Your task to perform on an android device: Search for pizza restaurants on Maps Image 0: 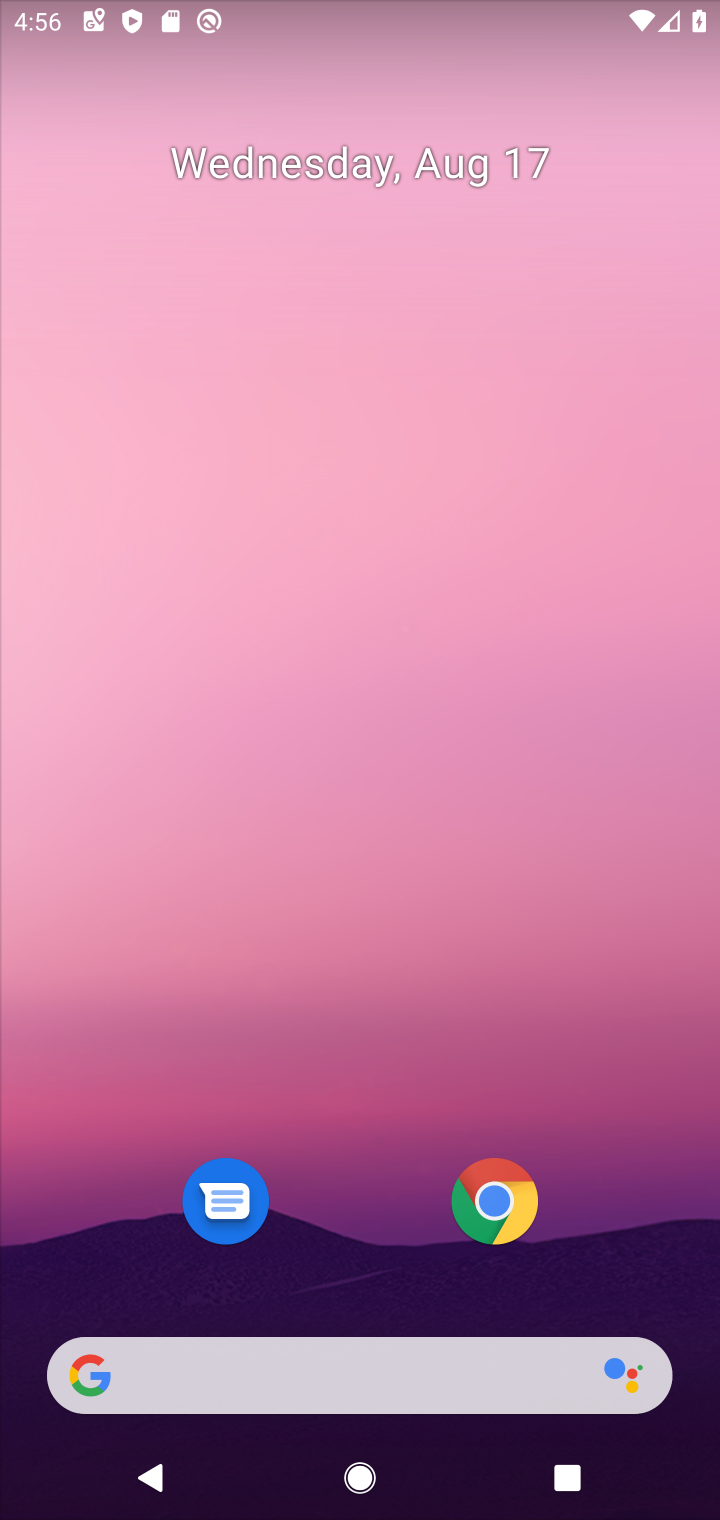
Step 0: drag from (490, 895) to (685, 22)
Your task to perform on an android device: Search for pizza restaurants on Maps Image 1: 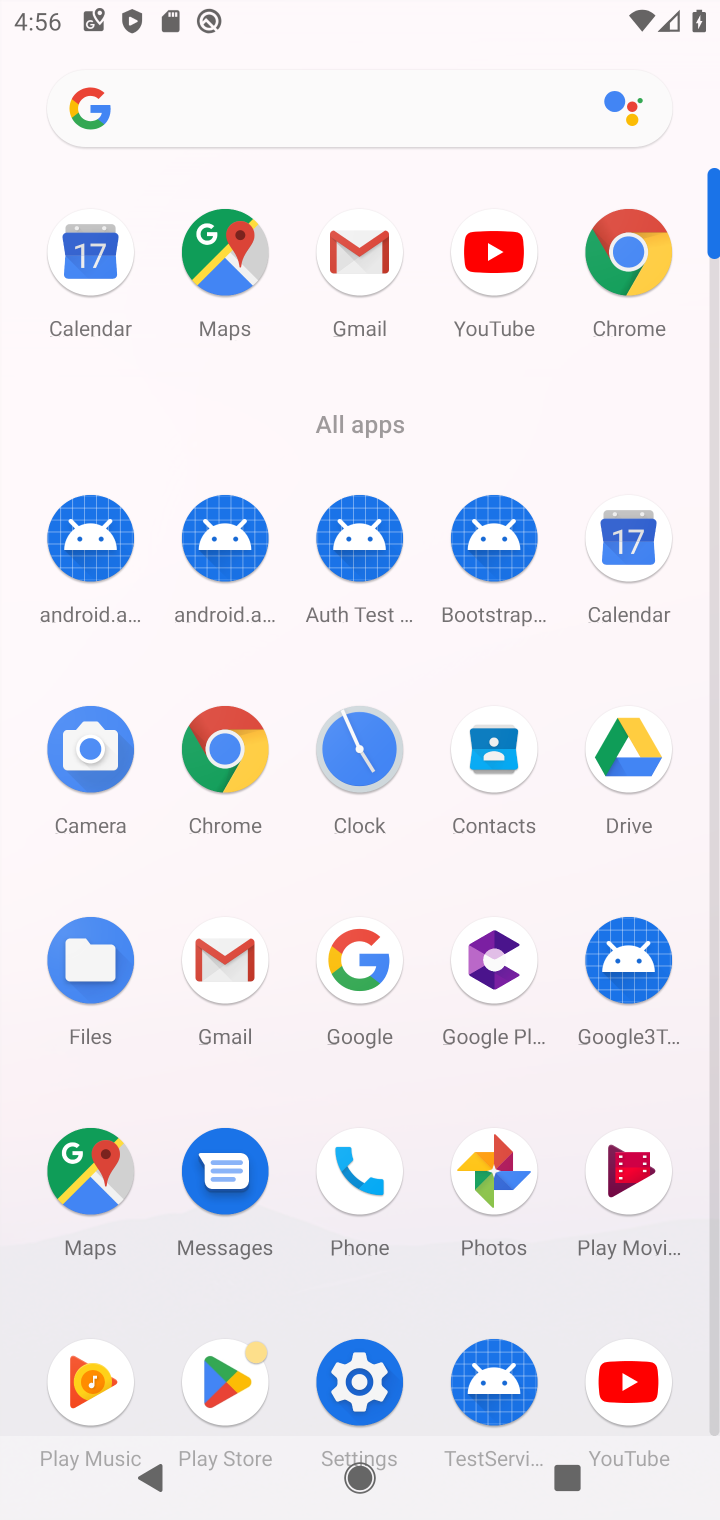
Step 1: click (232, 276)
Your task to perform on an android device: Search for pizza restaurants on Maps Image 2: 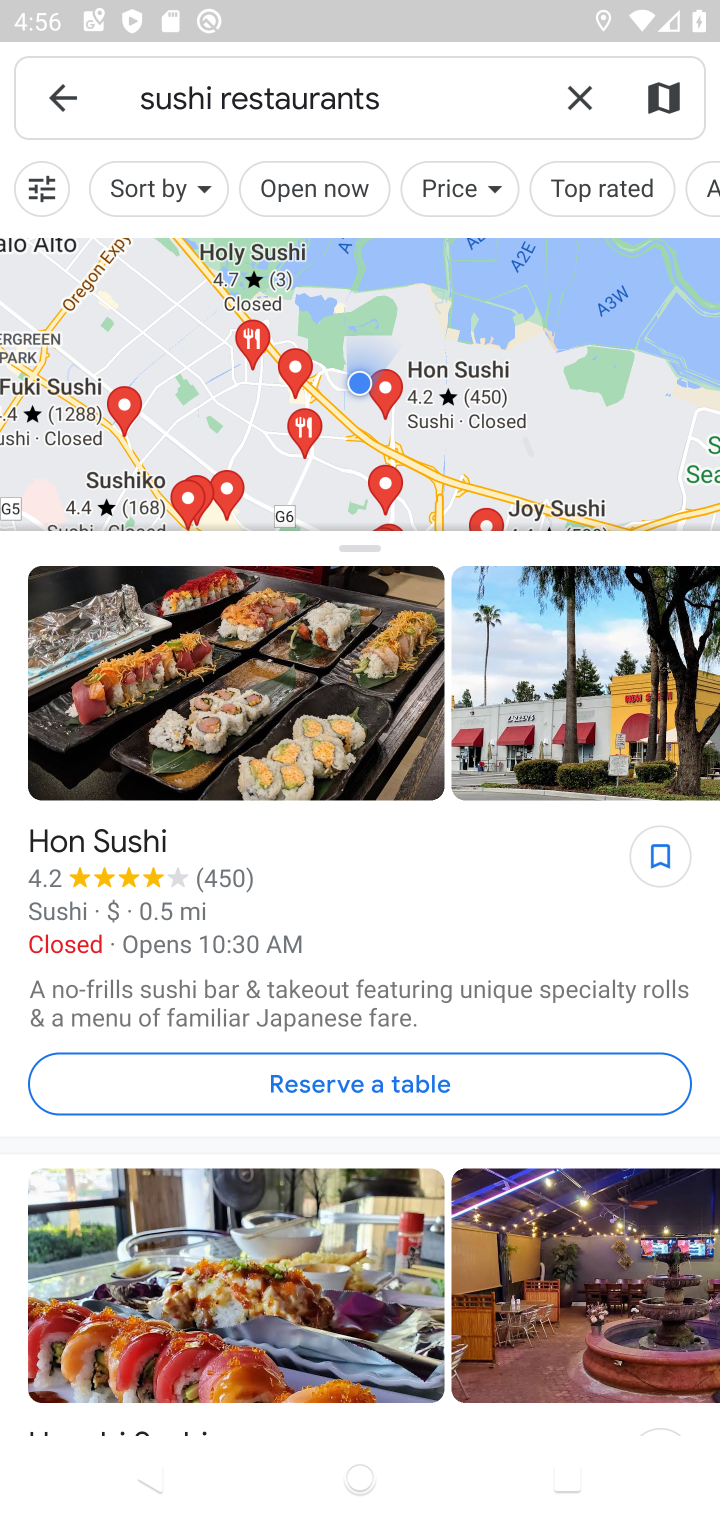
Step 2: click (588, 112)
Your task to perform on an android device: Search for pizza restaurants on Maps Image 3: 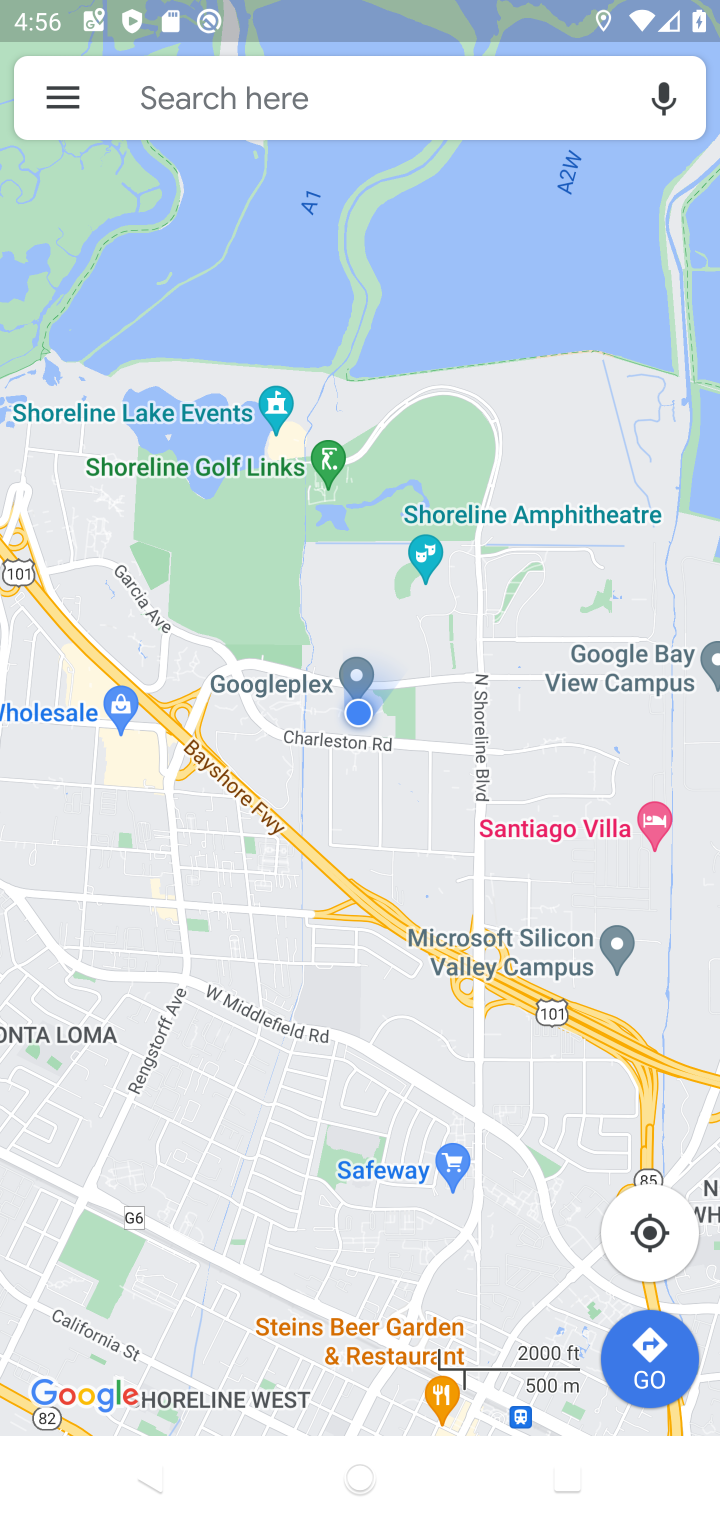
Step 3: click (243, 90)
Your task to perform on an android device: Search for pizza restaurants on Maps Image 4: 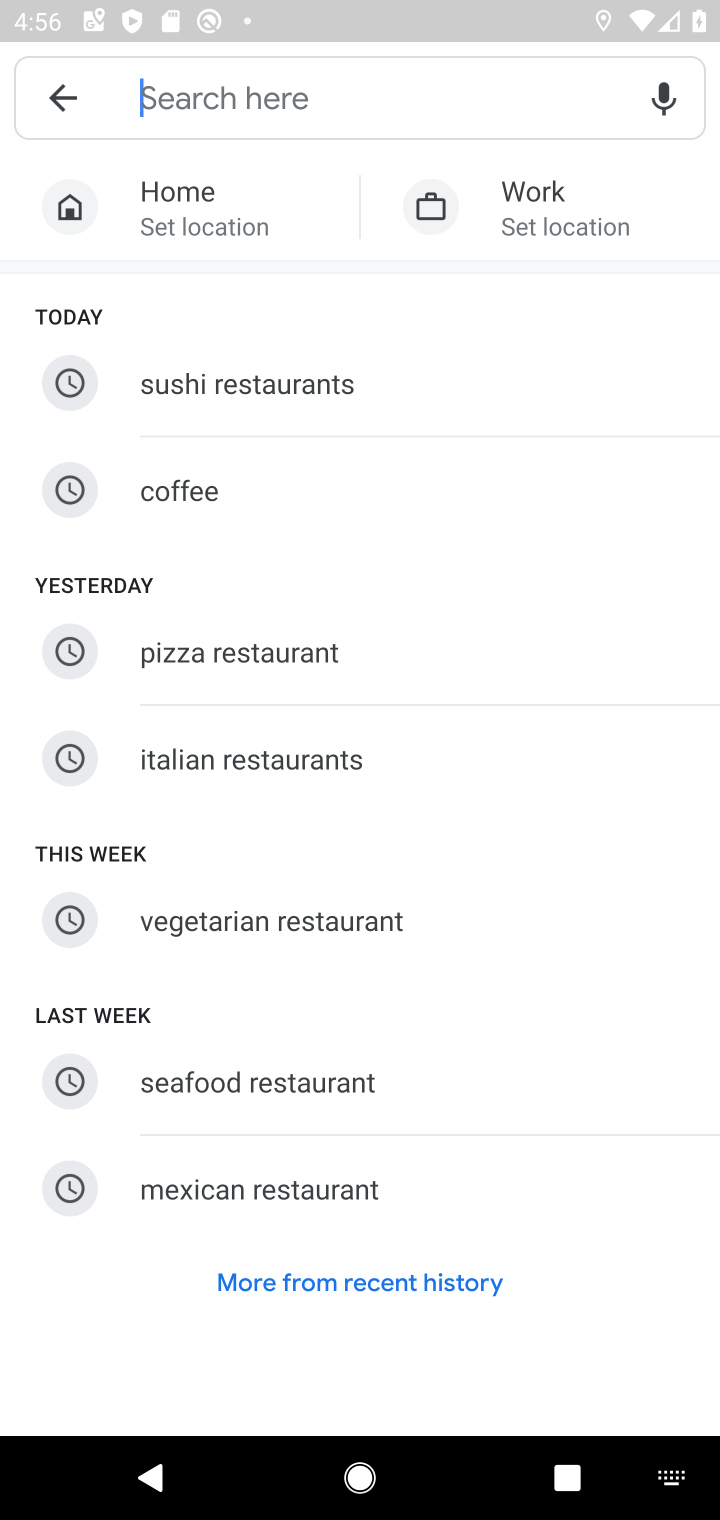
Step 4: click (212, 664)
Your task to perform on an android device: Search for pizza restaurants on Maps Image 5: 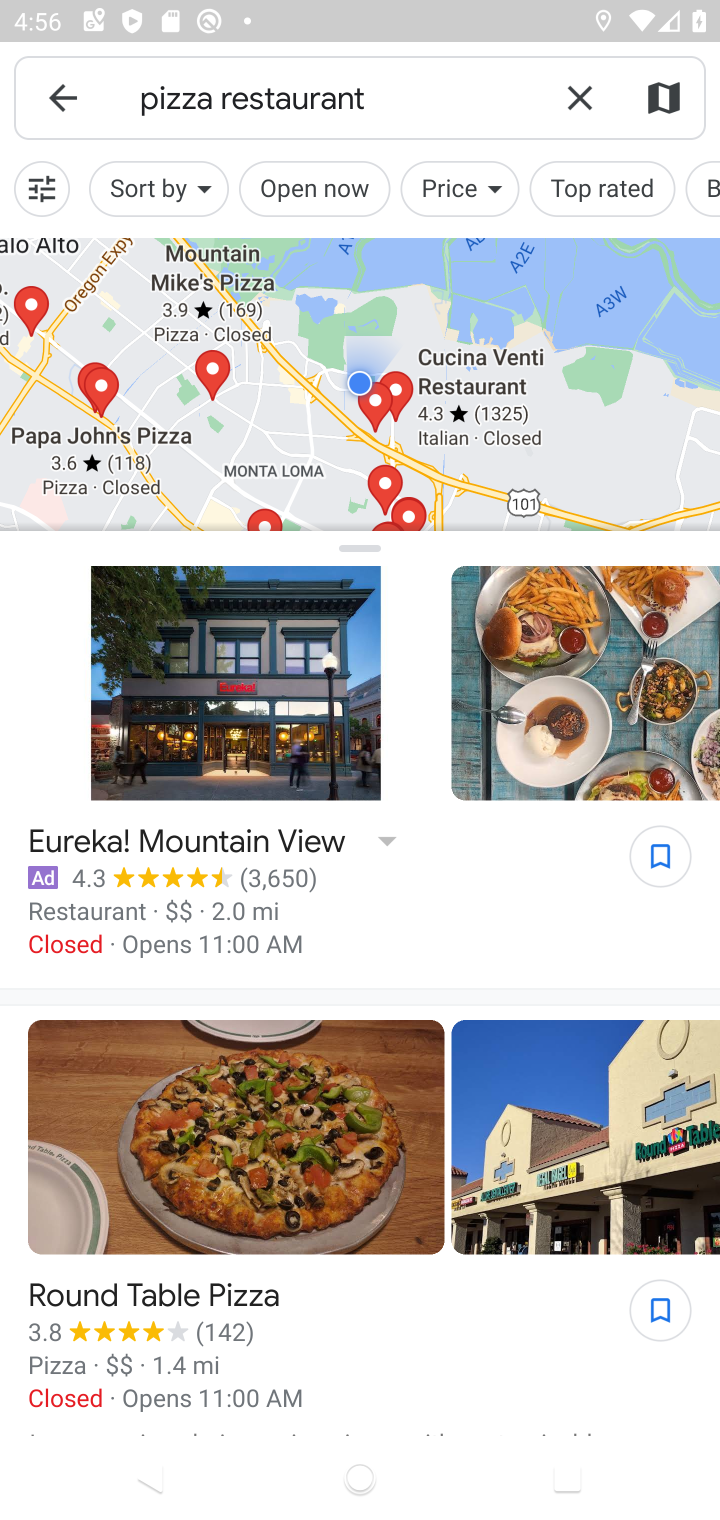
Step 5: task complete